Your task to perform on an android device: Add "rayovac triple a" to the cart on bestbuy.com, then select checkout. Image 0: 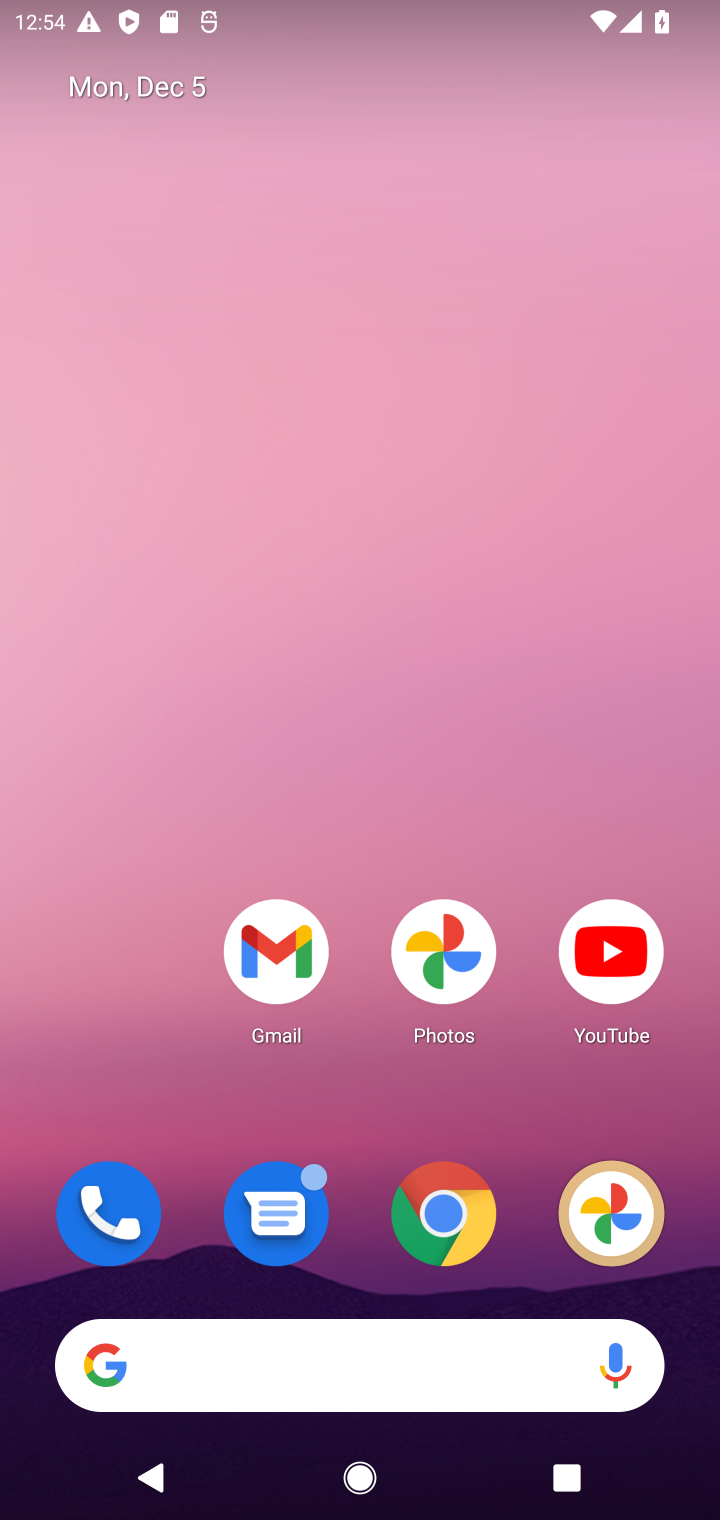
Step 0: click (431, 1219)
Your task to perform on an android device: Add "rayovac triple a" to the cart on bestbuy.com, then select checkout. Image 1: 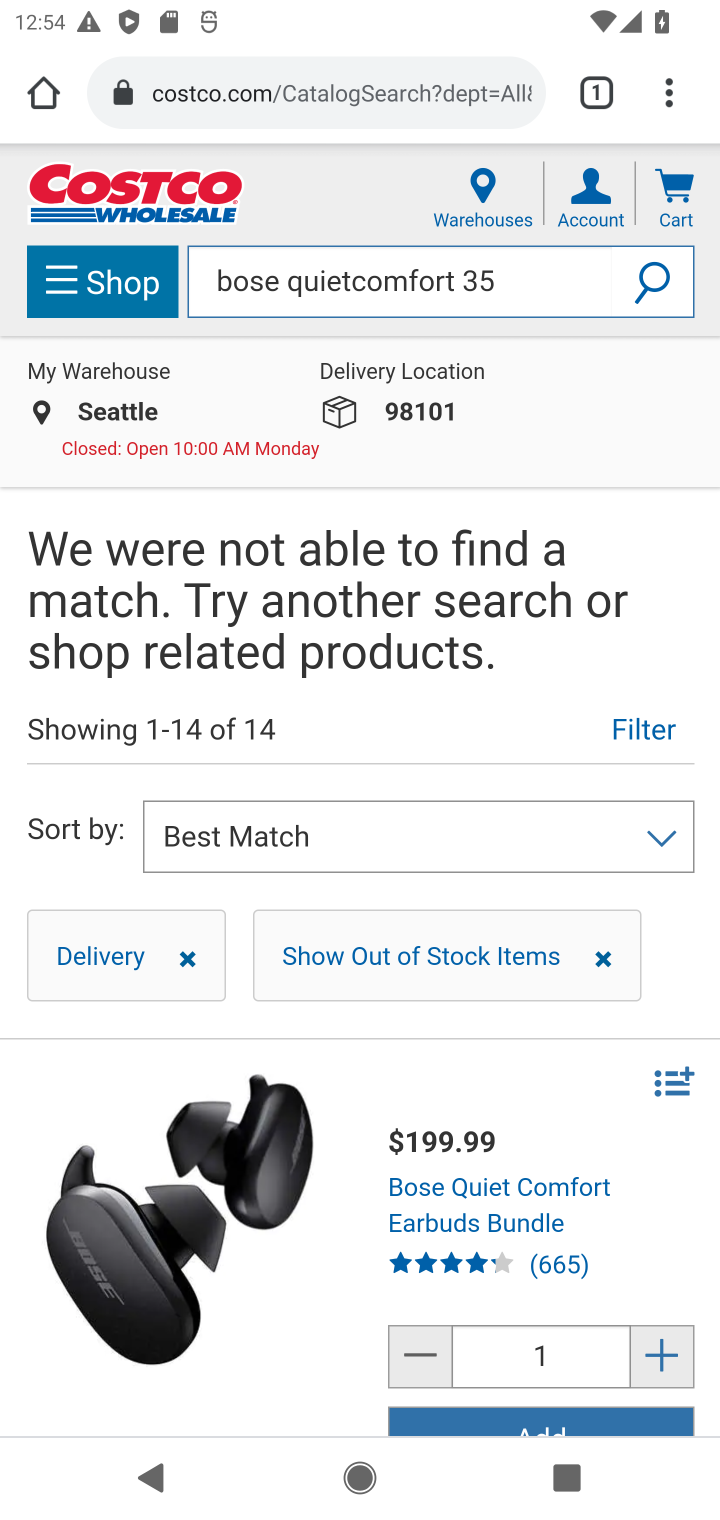
Step 1: click (306, 95)
Your task to perform on an android device: Add "rayovac triple a" to the cart on bestbuy.com, then select checkout. Image 2: 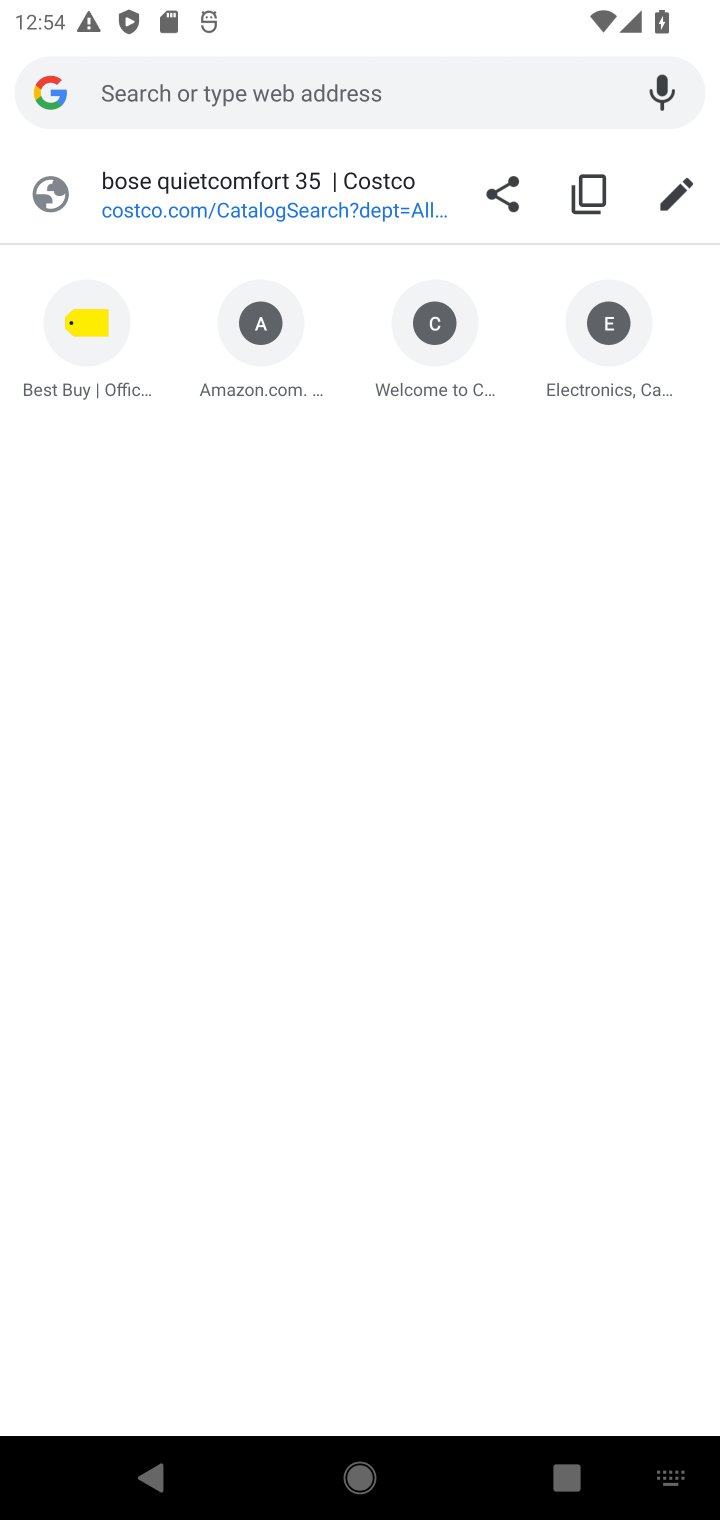
Step 2: click (86, 342)
Your task to perform on an android device: Add "rayovac triple a" to the cart on bestbuy.com, then select checkout. Image 3: 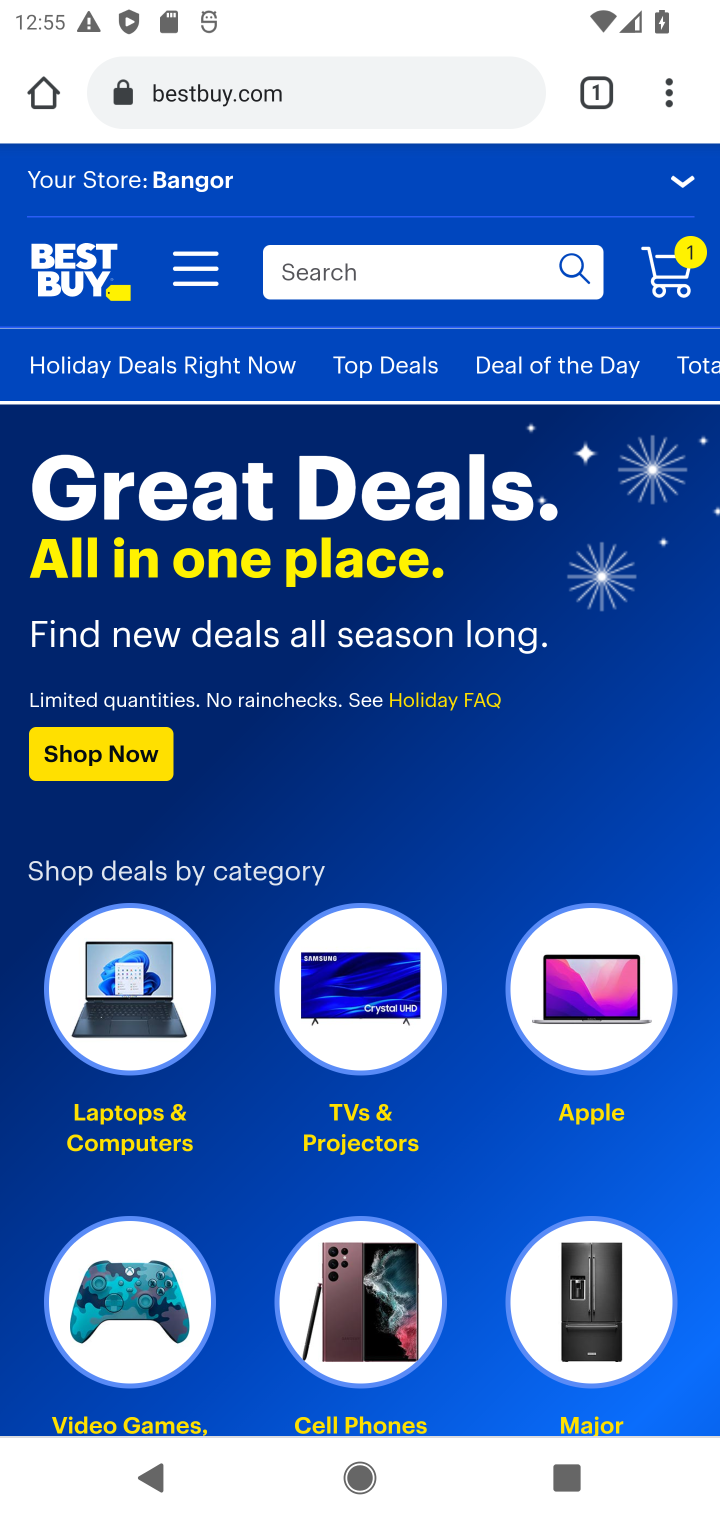
Step 3: click (363, 270)
Your task to perform on an android device: Add "rayovac triple a" to the cart on bestbuy.com, then select checkout. Image 4: 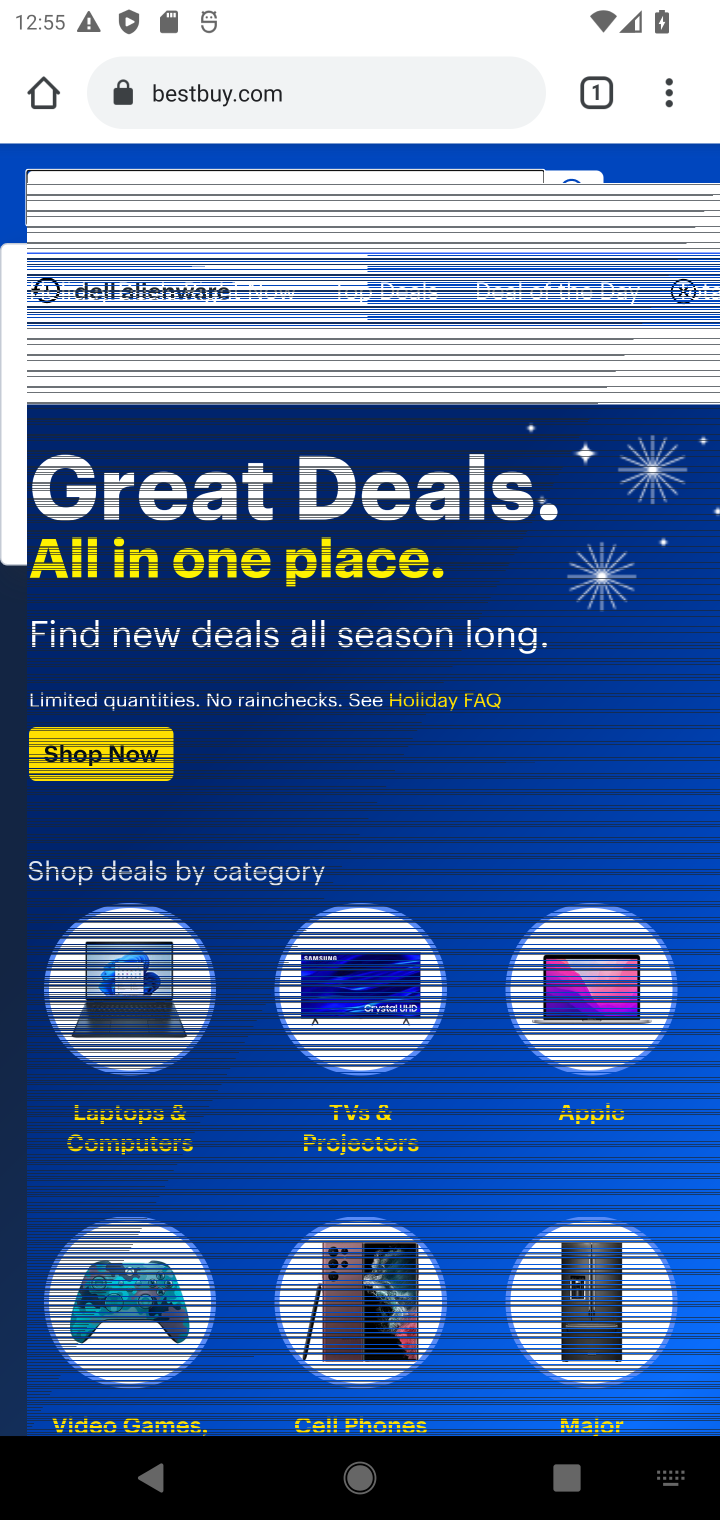
Step 4: type "rayovac triple a"
Your task to perform on an android device: Add "rayovac triple a" to the cart on bestbuy.com, then select checkout. Image 5: 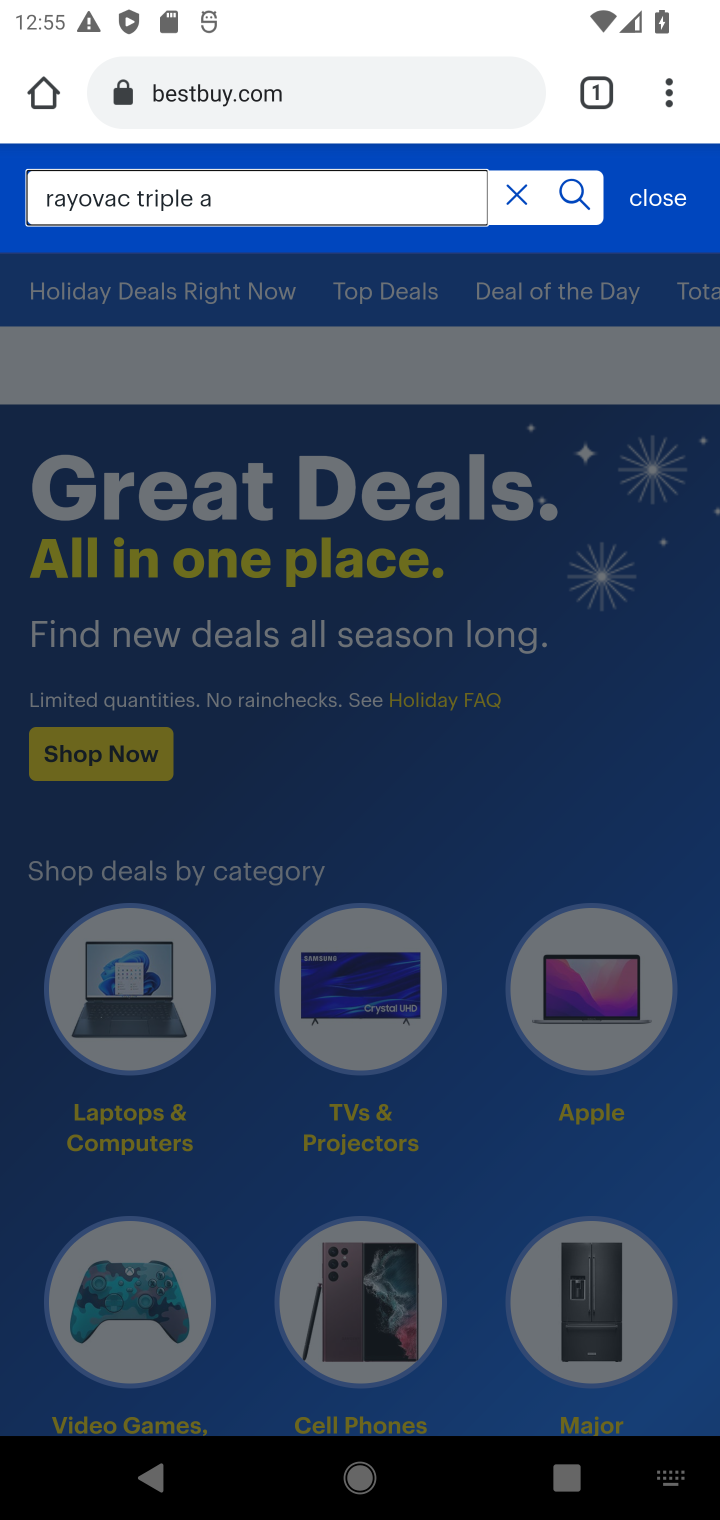
Step 5: click (571, 196)
Your task to perform on an android device: Add "rayovac triple a" to the cart on bestbuy.com, then select checkout. Image 6: 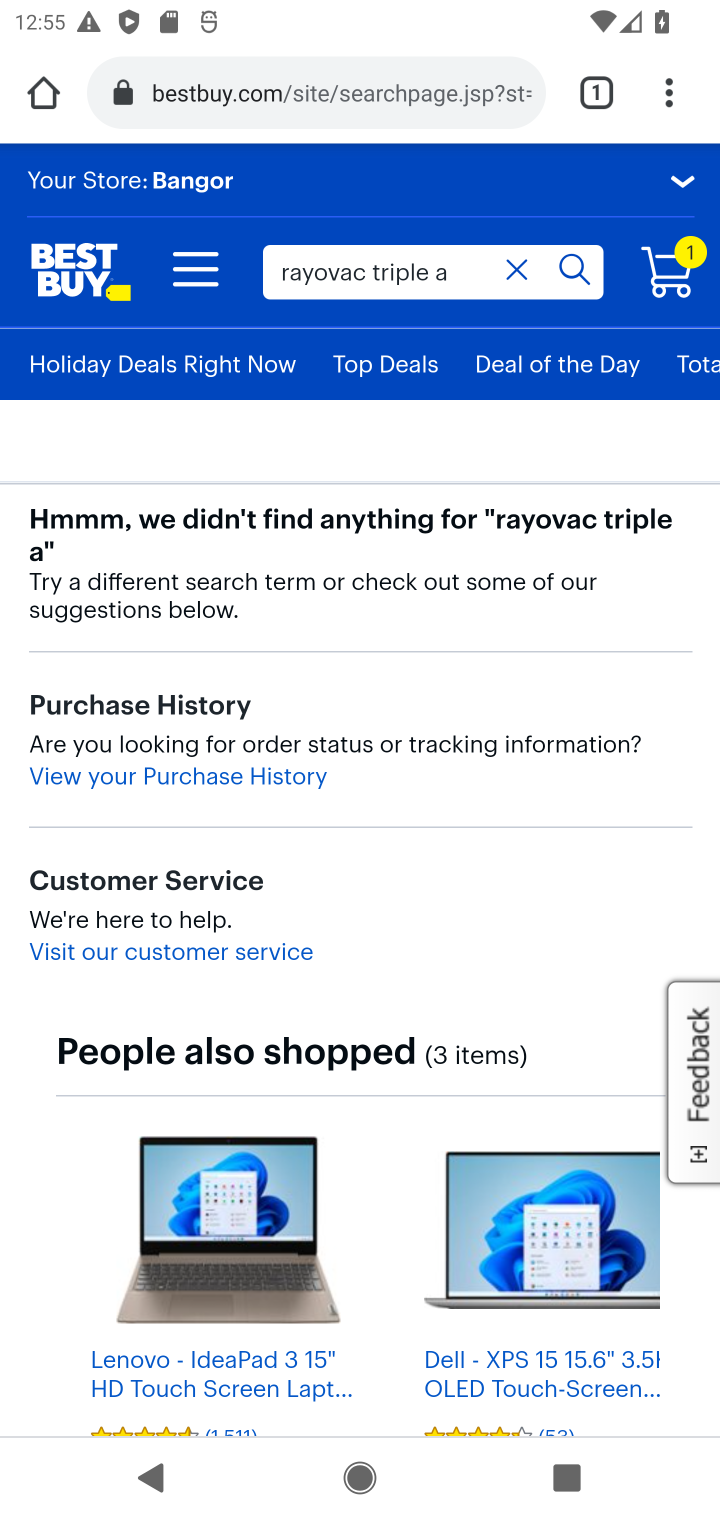
Step 6: task complete